Your task to perform on an android device: Open notification settings Image 0: 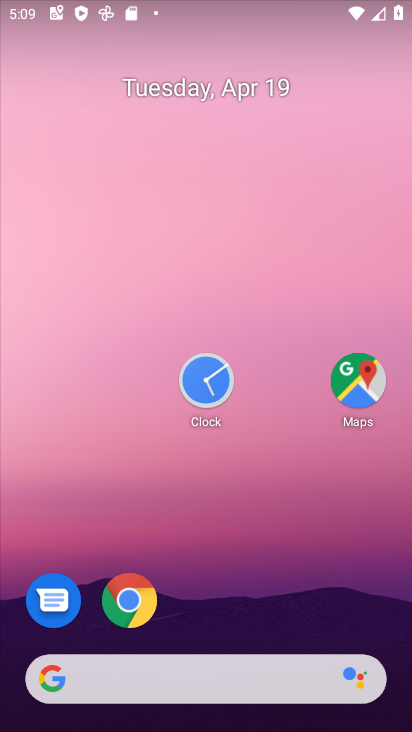
Step 0: click (292, 108)
Your task to perform on an android device: Open notification settings Image 1: 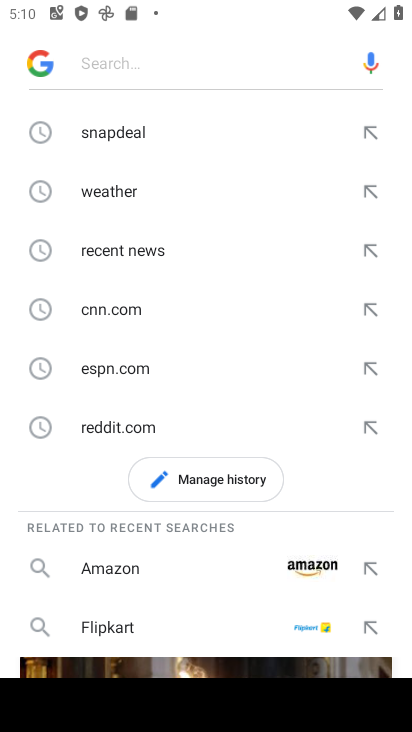
Step 1: press home button
Your task to perform on an android device: Open notification settings Image 2: 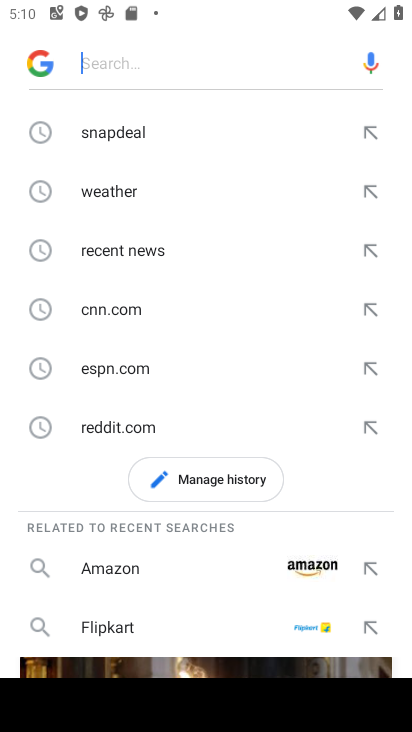
Step 2: press home button
Your task to perform on an android device: Open notification settings Image 3: 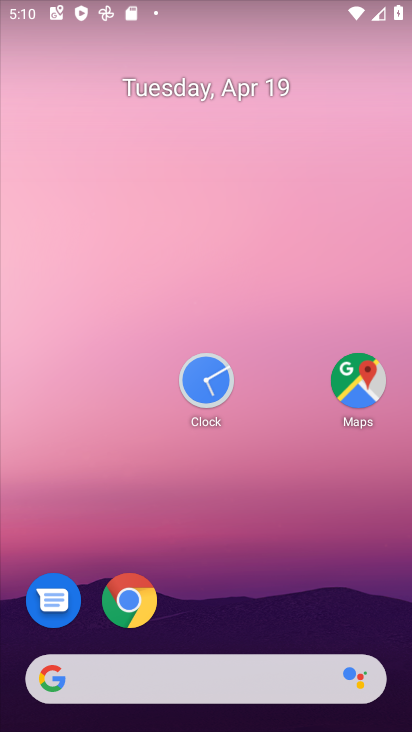
Step 3: drag from (232, 602) to (128, 22)
Your task to perform on an android device: Open notification settings Image 4: 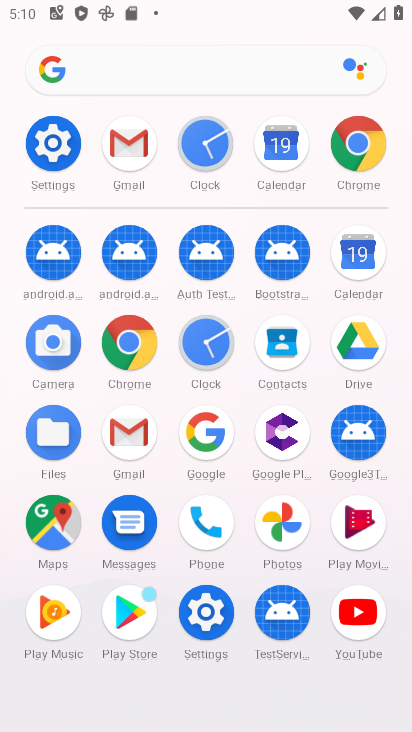
Step 4: click (54, 155)
Your task to perform on an android device: Open notification settings Image 5: 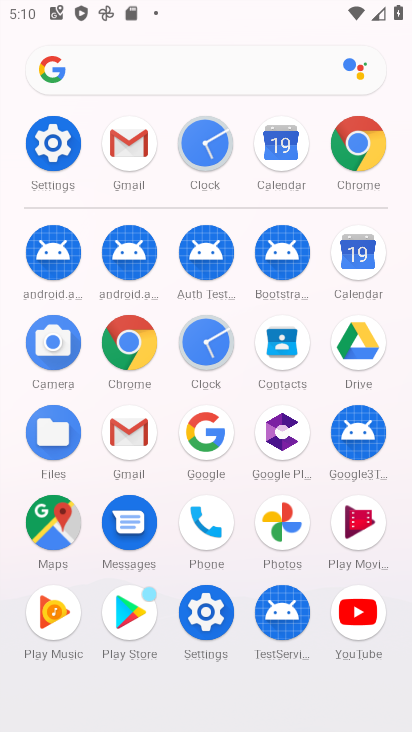
Step 5: click (55, 144)
Your task to perform on an android device: Open notification settings Image 6: 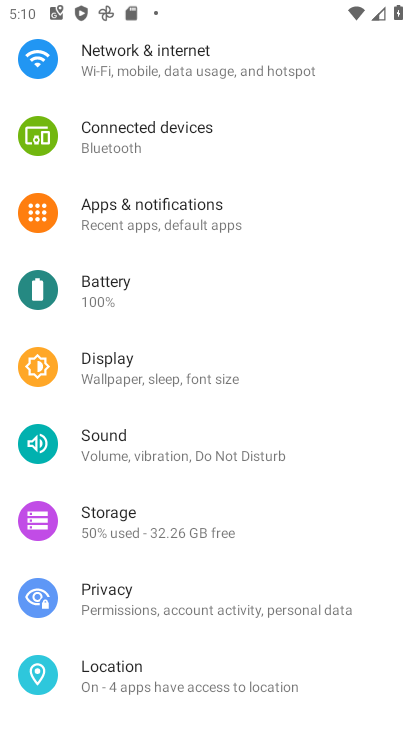
Step 6: click (129, 218)
Your task to perform on an android device: Open notification settings Image 7: 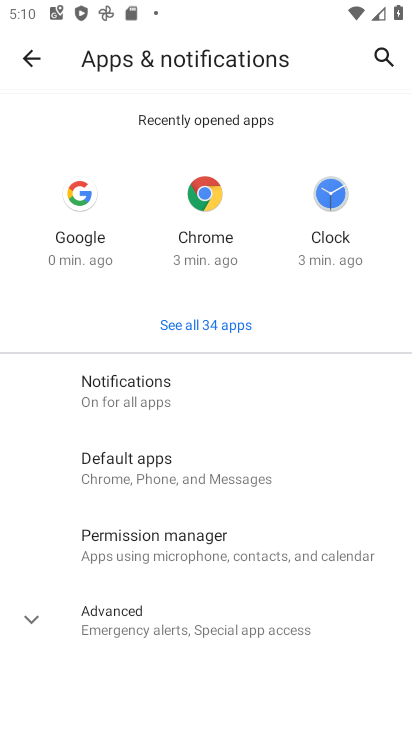
Step 7: drag from (210, 566) to (176, 294)
Your task to perform on an android device: Open notification settings Image 8: 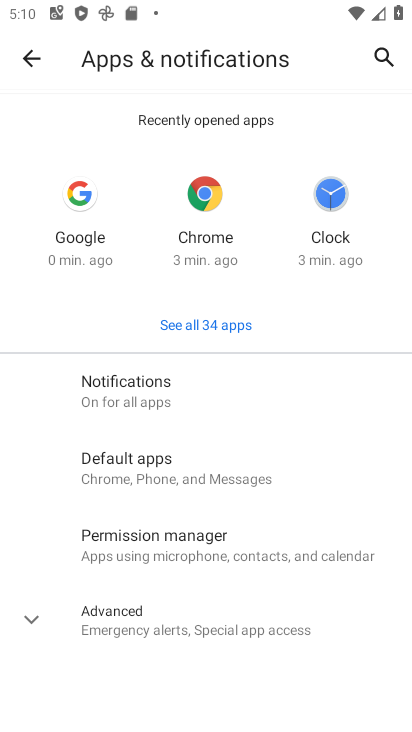
Step 8: click (127, 390)
Your task to perform on an android device: Open notification settings Image 9: 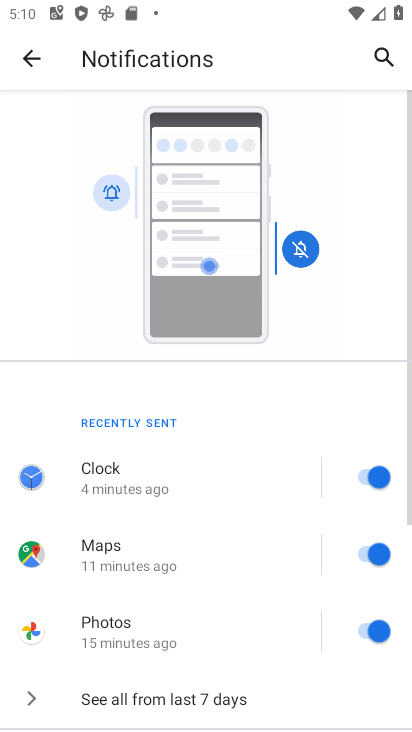
Step 9: drag from (149, 439) to (161, 149)
Your task to perform on an android device: Open notification settings Image 10: 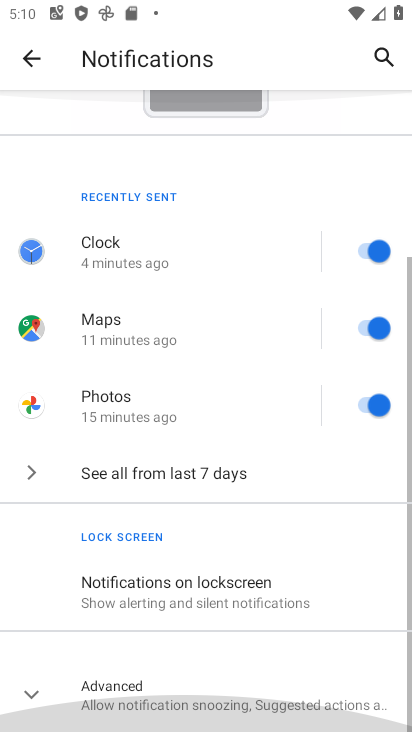
Step 10: drag from (190, 402) to (181, 297)
Your task to perform on an android device: Open notification settings Image 11: 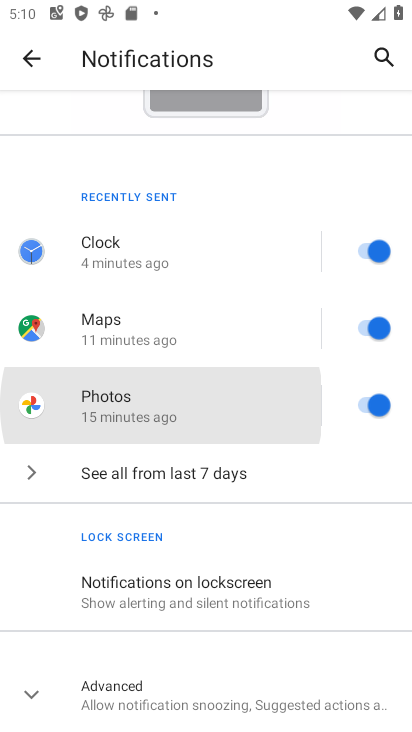
Step 11: drag from (219, 556) to (201, 234)
Your task to perform on an android device: Open notification settings Image 12: 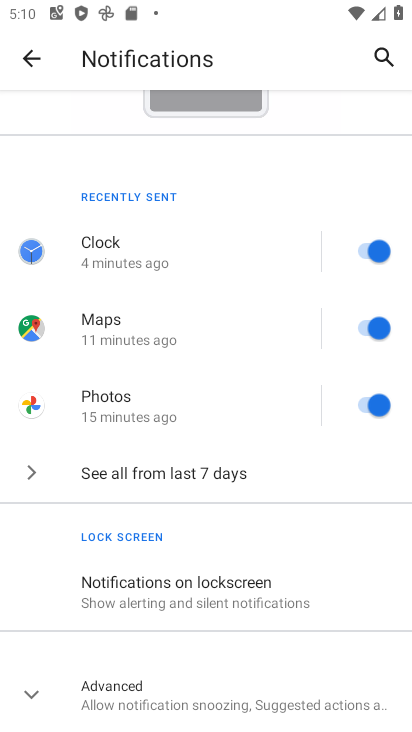
Step 12: drag from (168, 390) to (167, 219)
Your task to perform on an android device: Open notification settings Image 13: 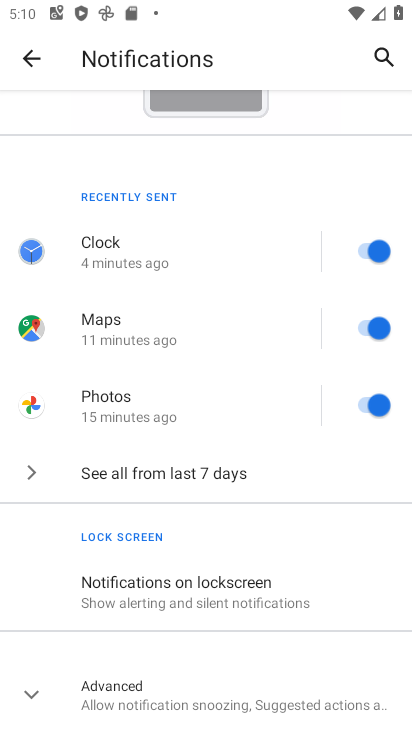
Step 13: click (141, 694)
Your task to perform on an android device: Open notification settings Image 14: 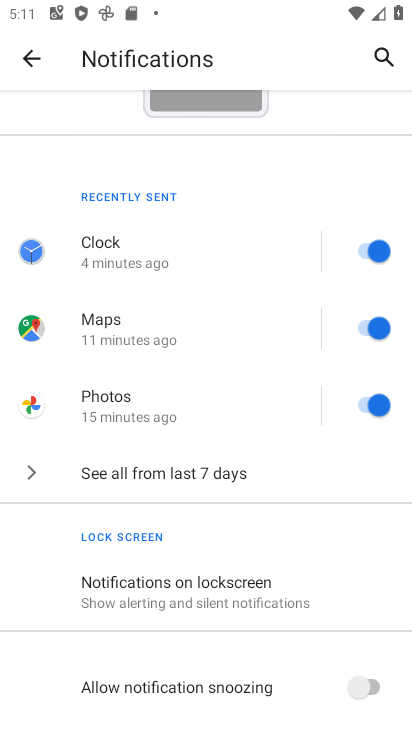
Step 14: drag from (219, 451) to (192, 257)
Your task to perform on an android device: Open notification settings Image 15: 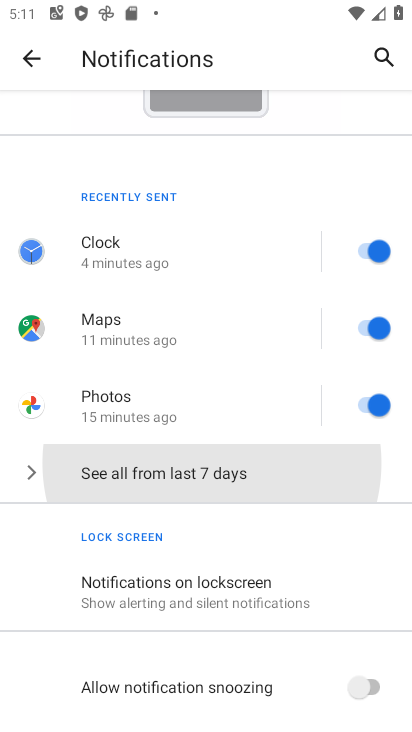
Step 15: click (187, 192)
Your task to perform on an android device: Open notification settings Image 16: 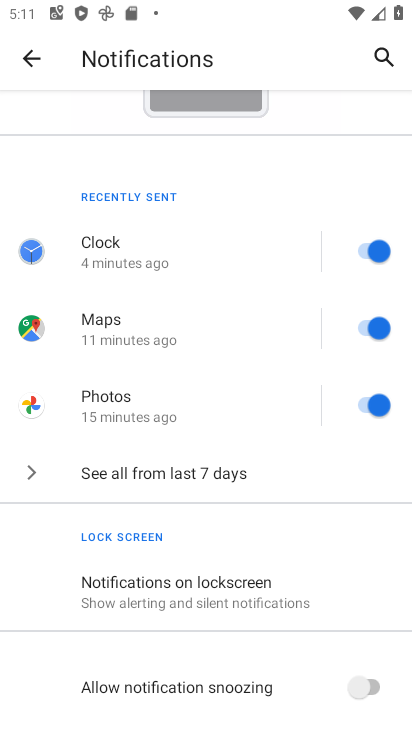
Step 16: task complete